Your task to perform on an android device: change keyboard looks Image 0: 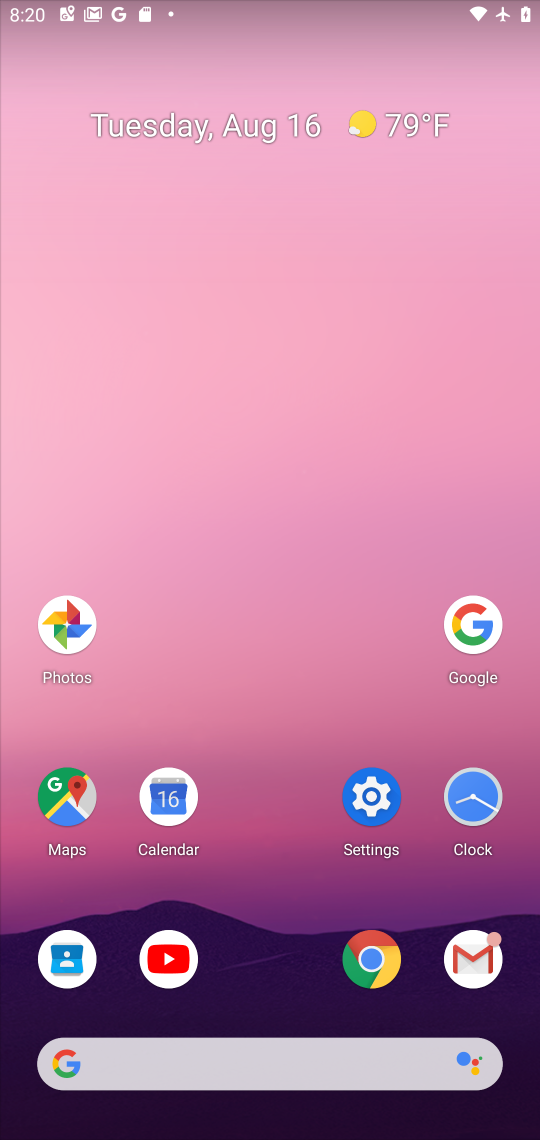
Step 0: click (374, 791)
Your task to perform on an android device: change keyboard looks Image 1: 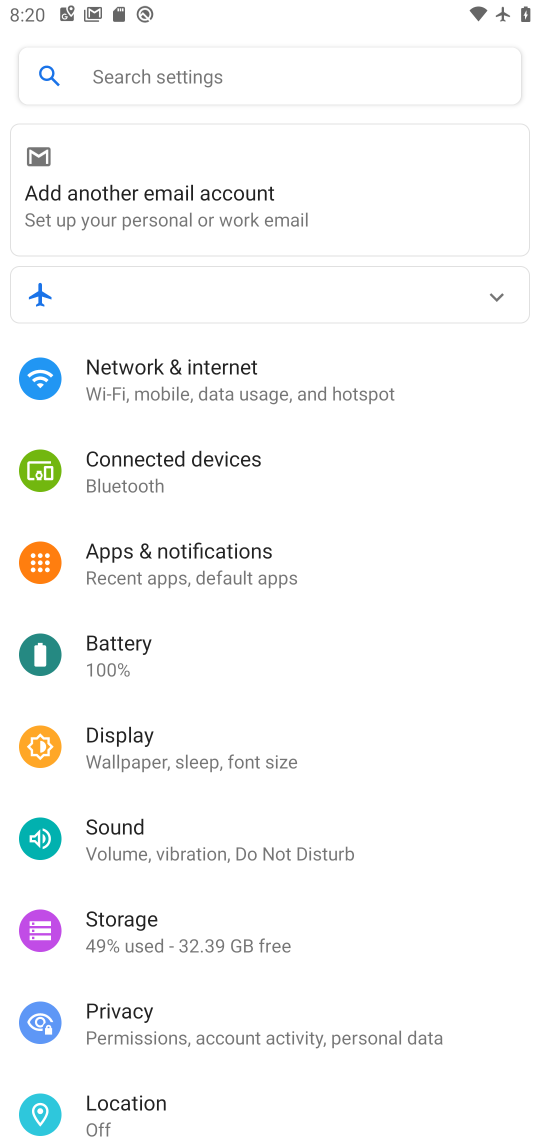
Step 1: drag from (293, 993) to (294, 646)
Your task to perform on an android device: change keyboard looks Image 2: 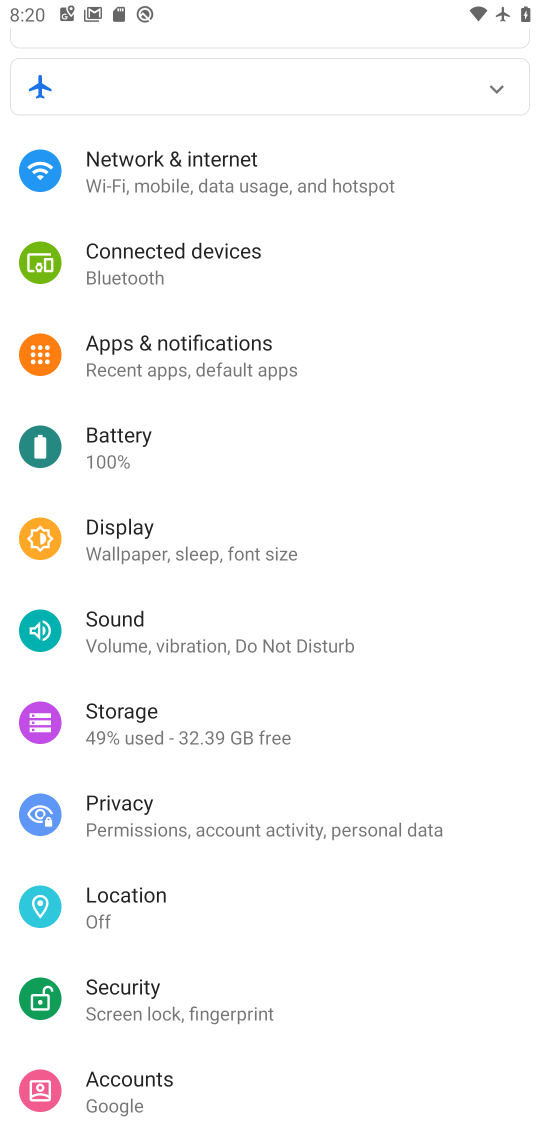
Step 2: drag from (326, 1070) to (316, 487)
Your task to perform on an android device: change keyboard looks Image 3: 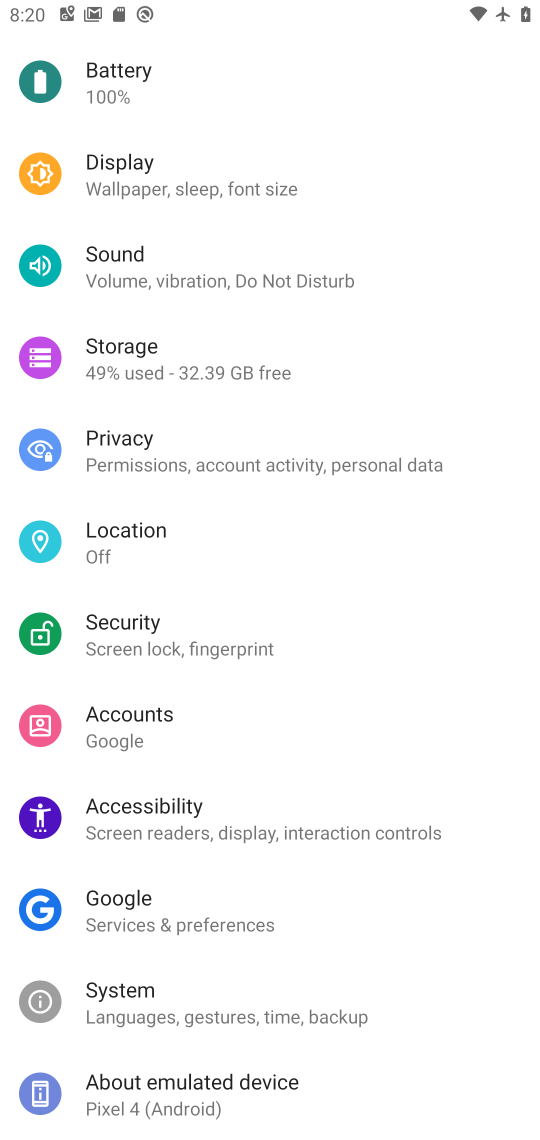
Step 3: click (119, 992)
Your task to perform on an android device: change keyboard looks Image 4: 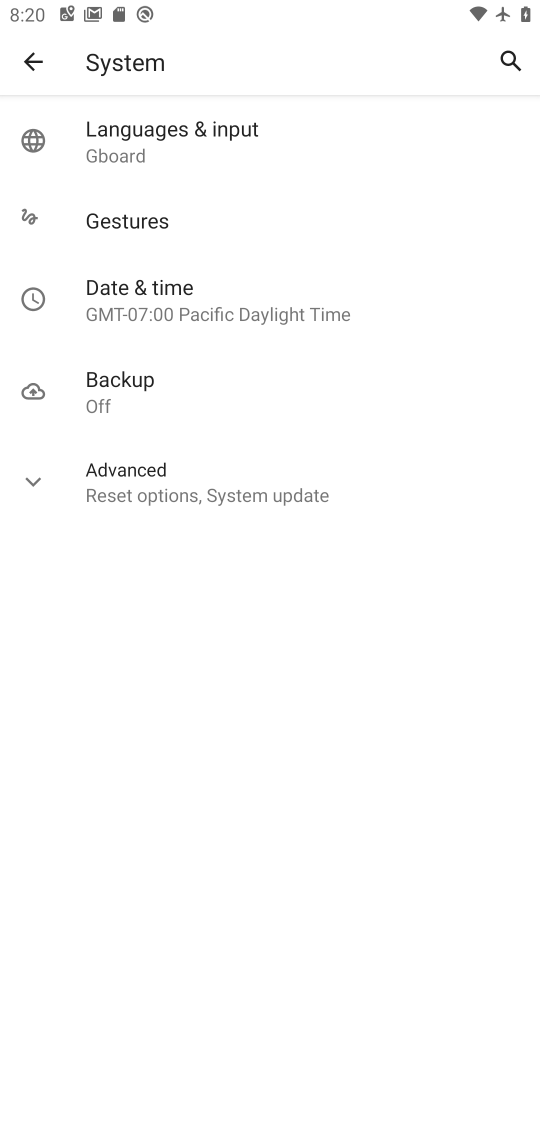
Step 4: click (153, 134)
Your task to perform on an android device: change keyboard looks Image 5: 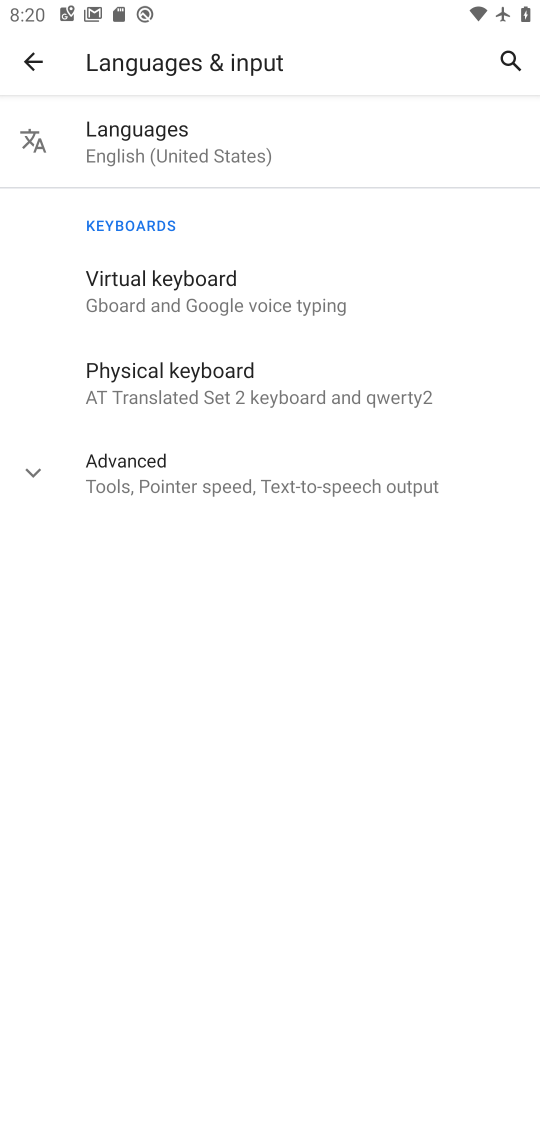
Step 5: click (164, 279)
Your task to perform on an android device: change keyboard looks Image 6: 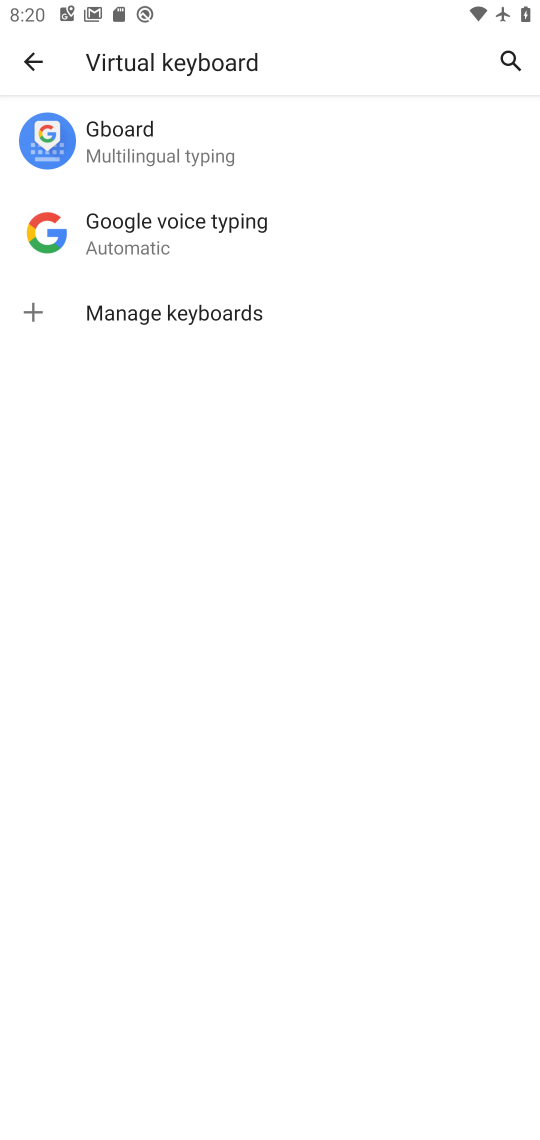
Step 6: click (116, 130)
Your task to perform on an android device: change keyboard looks Image 7: 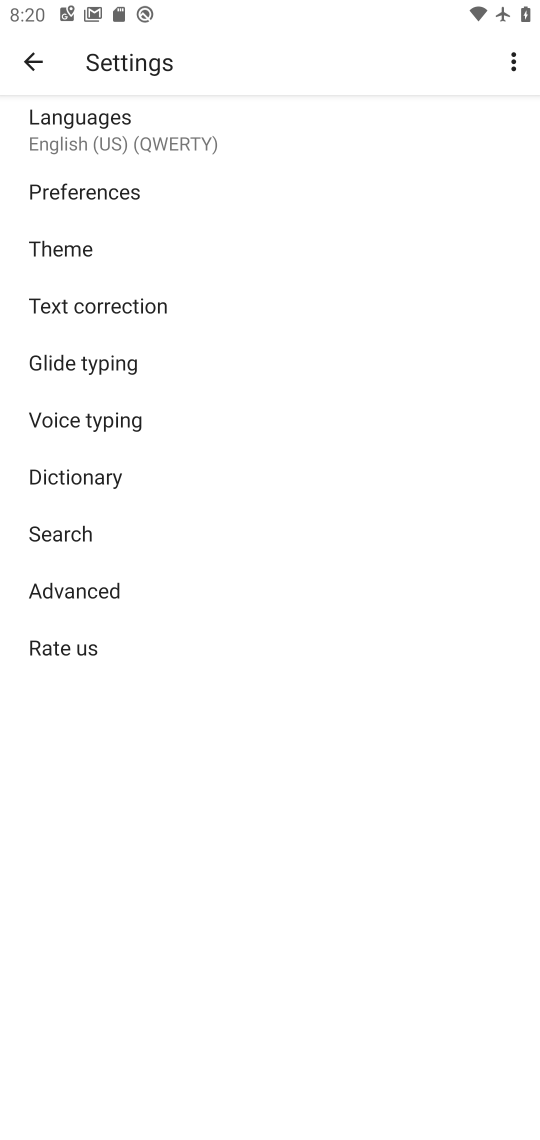
Step 7: click (66, 239)
Your task to perform on an android device: change keyboard looks Image 8: 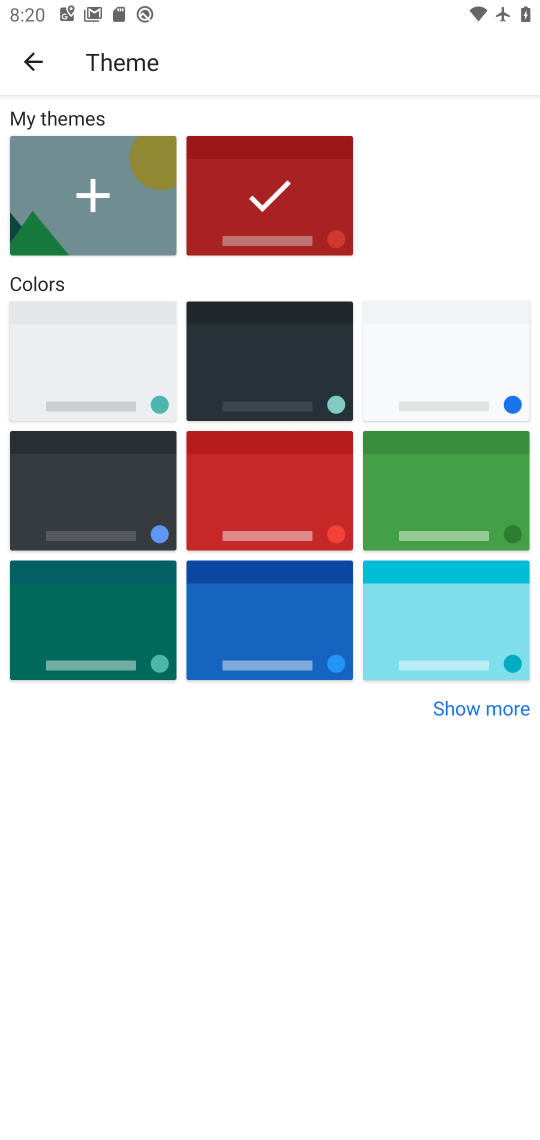
Step 8: click (109, 378)
Your task to perform on an android device: change keyboard looks Image 9: 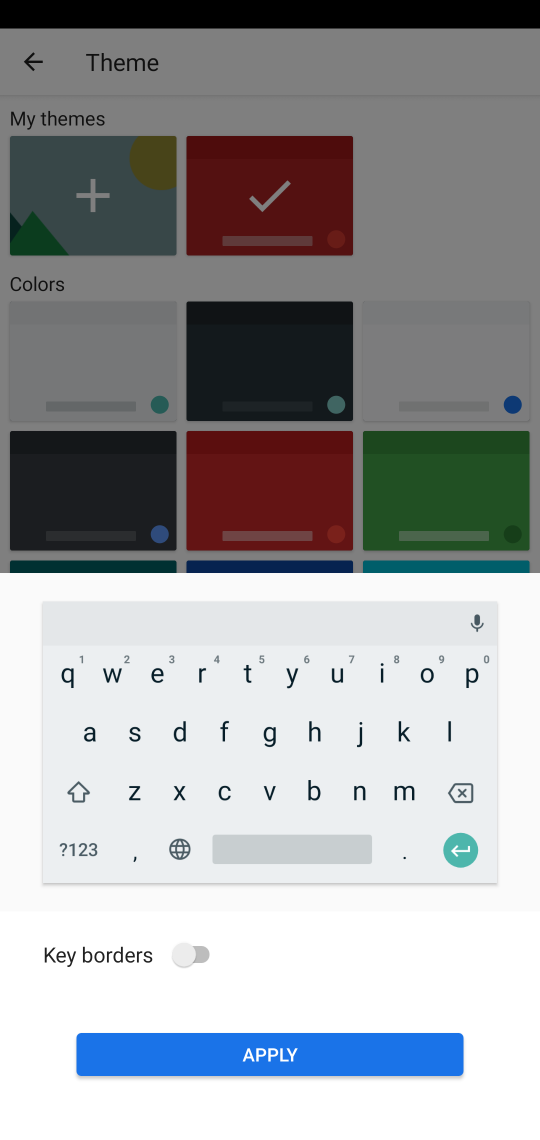
Step 9: click (275, 1057)
Your task to perform on an android device: change keyboard looks Image 10: 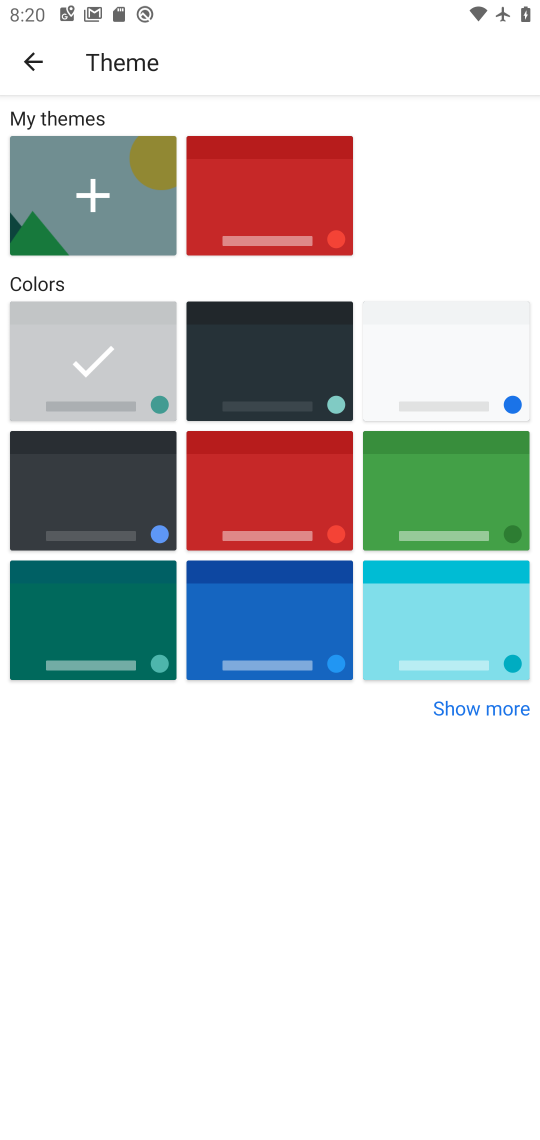
Step 10: task complete